Your task to perform on an android device: turn on priority inbox in the gmail app Image 0: 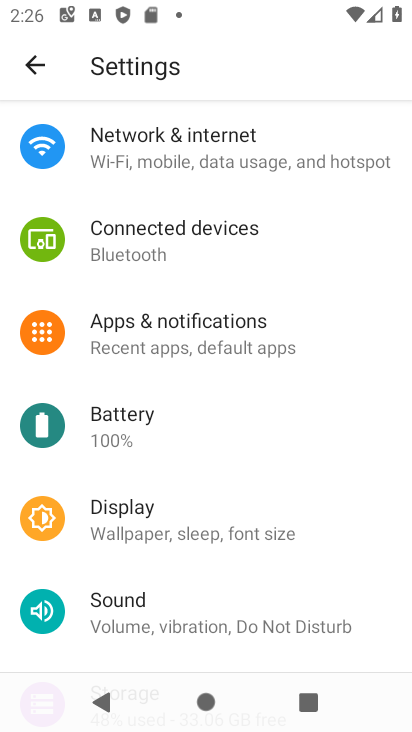
Step 0: press home button
Your task to perform on an android device: turn on priority inbox in the gmail app Image 1: 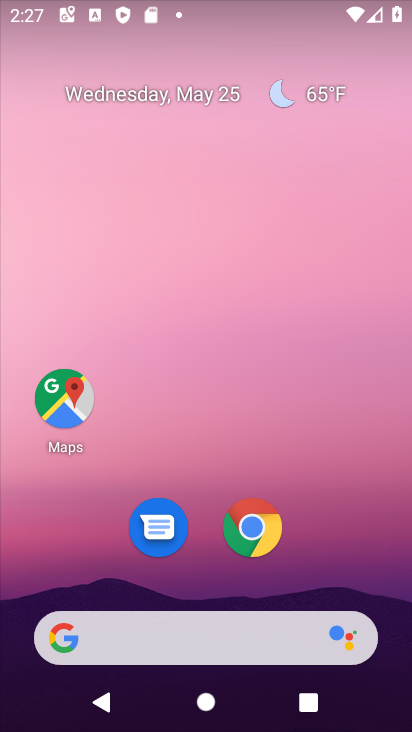
Step 1: drag from (201, 606) to (209, 14)
Your task to perform on an android device: turn on priority inbox in the gmail app Image 2: 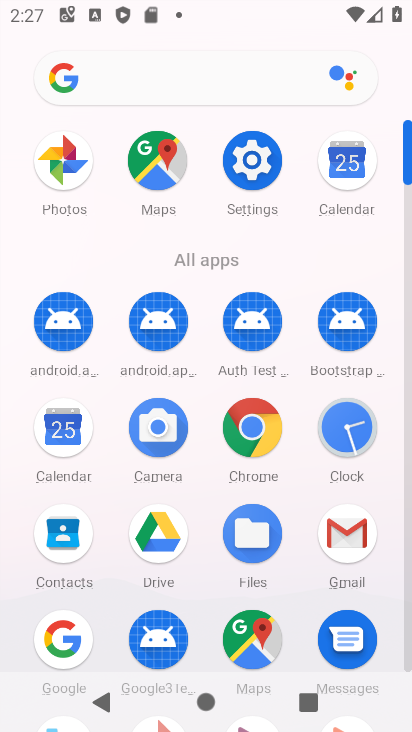
Step 2: click (357, 548)
Your task to perform on an android device: turn on priority inbox in the gmail app Image 3: 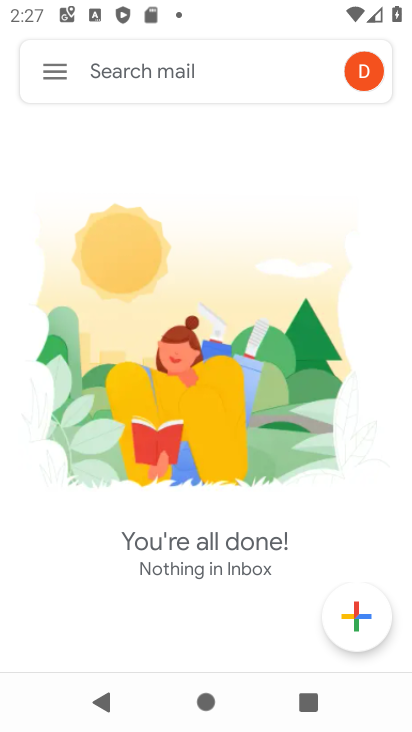
Step 3: click (57, 74)
Your task to perform on an android device: turn on priority inbox in the gmail app Image 4: 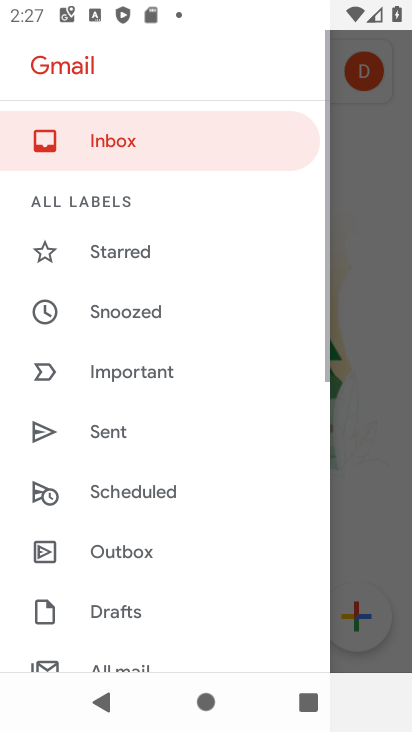
Step 4: drag from (126, 680) to (145, 102)
Your task to perform on an android device: turn on priority inbox in the gmail app Image 5: 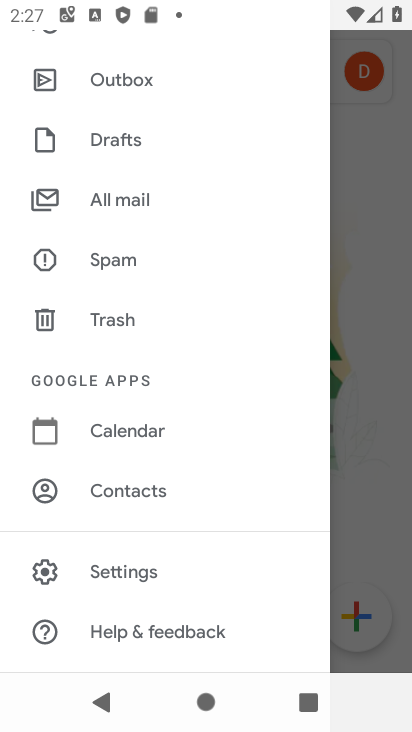
Step 5: click (165, 575)
Your task to perform on an android device: turn on priority inbox in the gmail app Image 6: 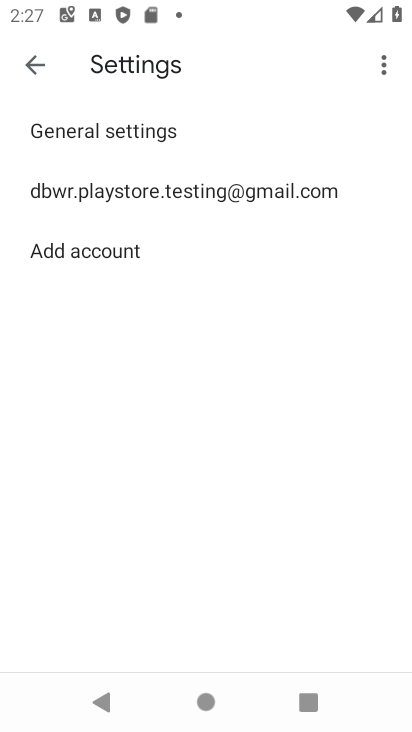
Step 6: click (242, 181)
Your task to perform on an android device: turn on priority inbox in the gmail app Image 7: 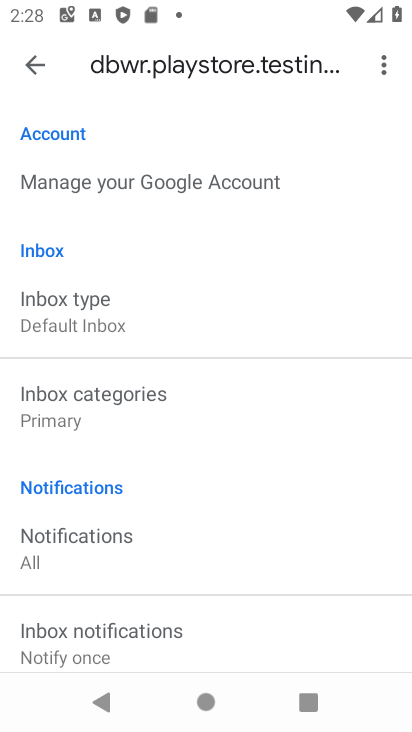
Step 7: click (115, 322)
Your task to perform on an android device: turn on priority inbox in the gmail app Image 8: 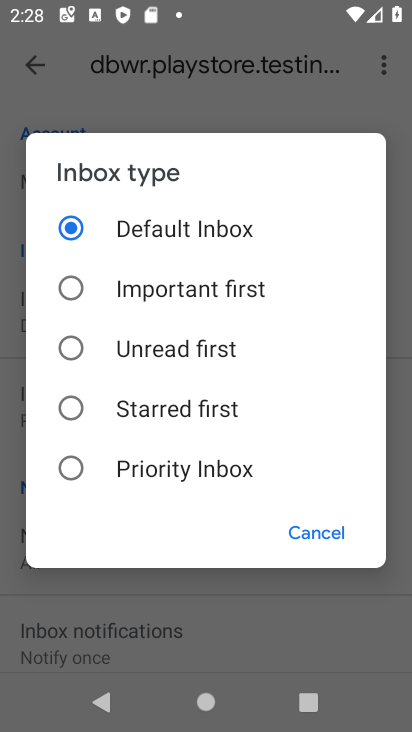
Step 8: click (138, 465)
Your task to perform on an android device: turn on priority inbox in the gmail app Image 9: 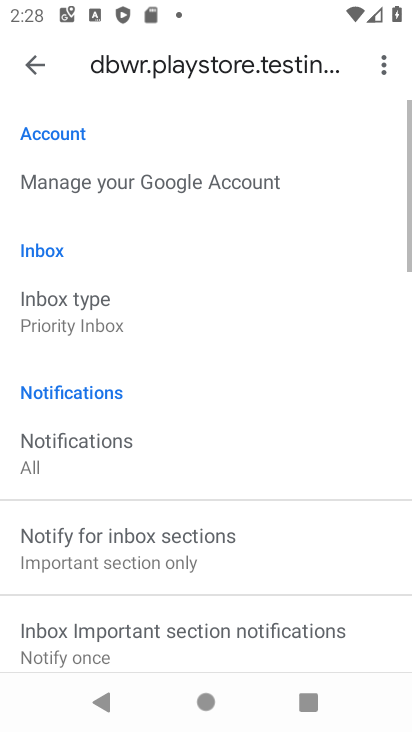
Step 9: task complete